Your task to perform on an android device: What's the weather today? Image 0: 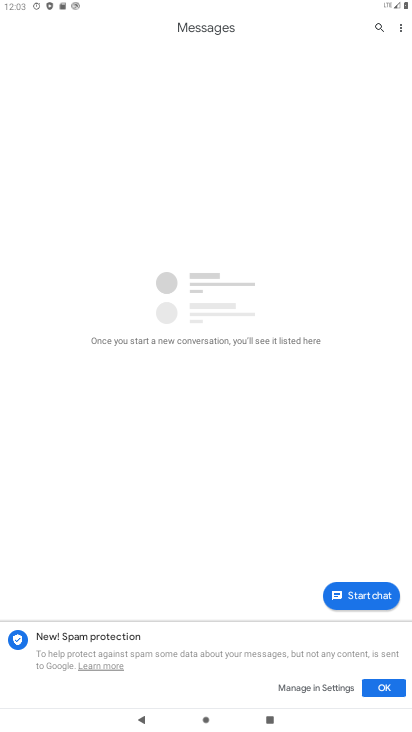
Step 0: press home button
Your task to perform on an android device: What's the weather today? Image 1: 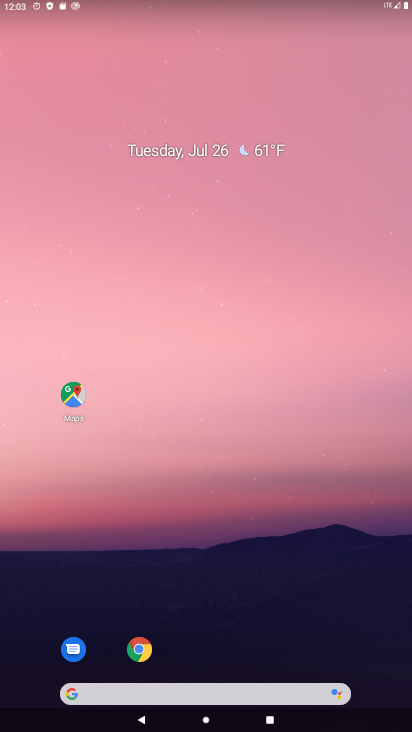
Step 1: click (197, 680)
Your task to perform on an android device: What's the weather today? Image 2: 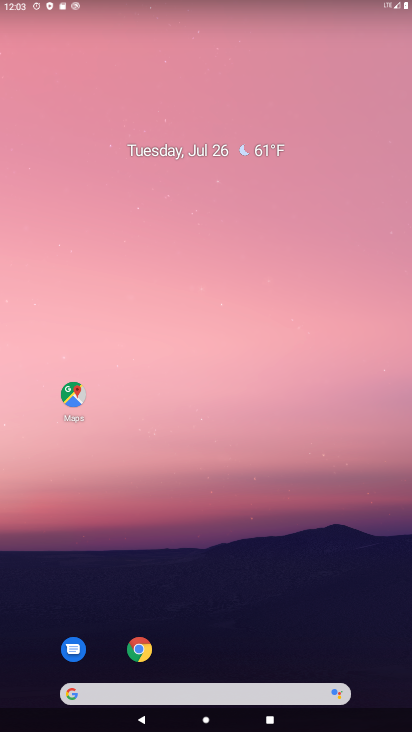
Step 2: click (219, 692)
Your task to perform on an android device: What's the weather today? Image 3: 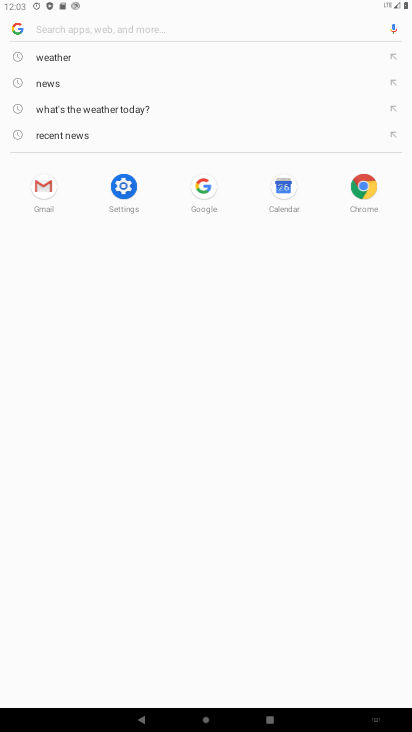
Step 3: click (61, 52)
Your task to perform on an android device: What's the weather today? Image 4: 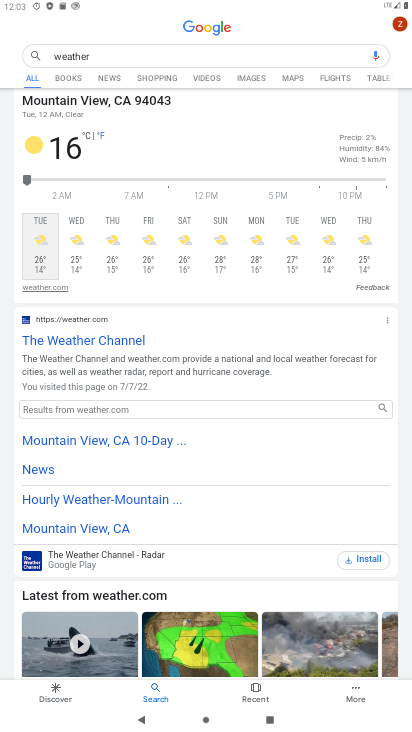
Step 4: click (30, 260)
Your task to perform on an android device: What's the weather today? Image 5: 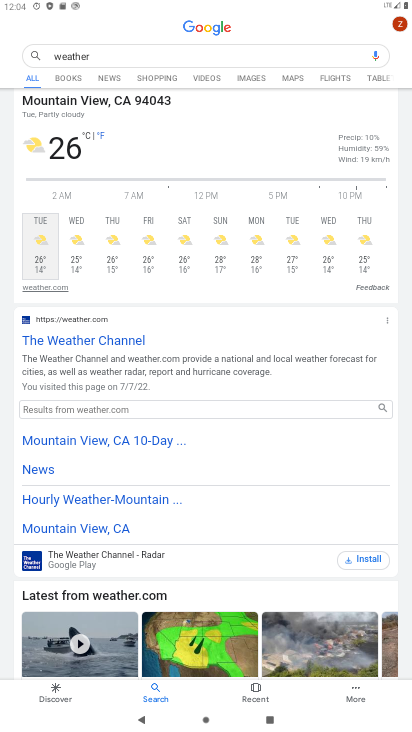
Step 5: task complete